Your task to perform on an android device: see sites visited before in the chrome app Image 0: 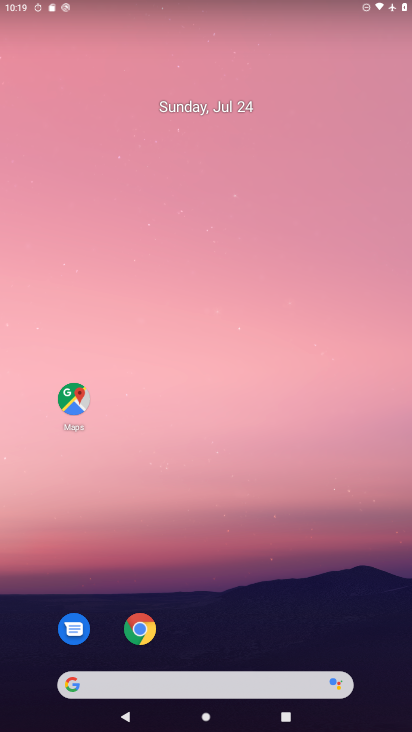
Step 0: drag from (211, 649) to (212, 200)
Your task to perform on an android device: see sites visited before in the chrome app Image 1: 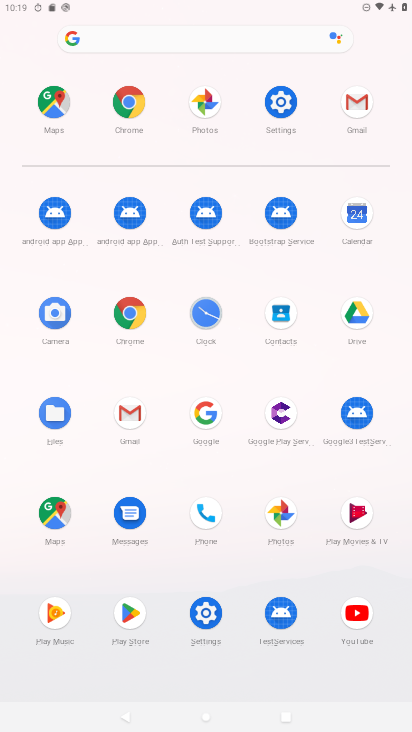
Step 1: click (130, 329)
Your task to perform on an android device: see sites visited before in the chrome app Image 2: 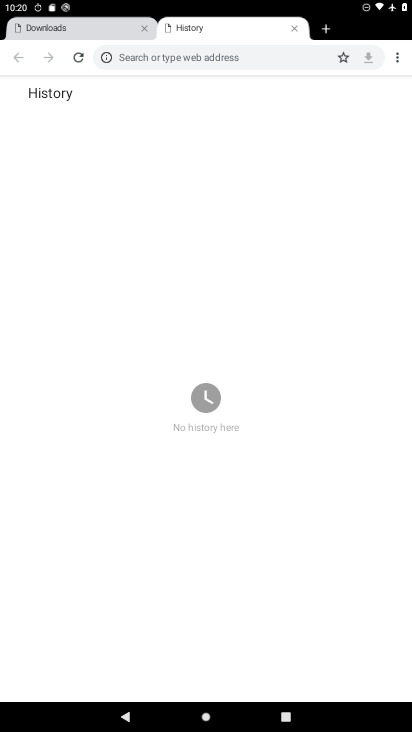
Step 2: task complete